Your task to perform on an android device: Open the stopwatch Image 0: 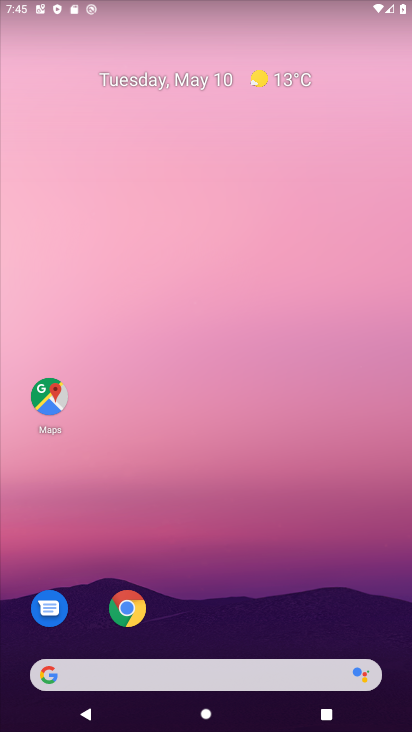
Step 0: drag from (239, 613) to (164, 162)
Your task to perform on an android device: Open the stopwatch Image 1: 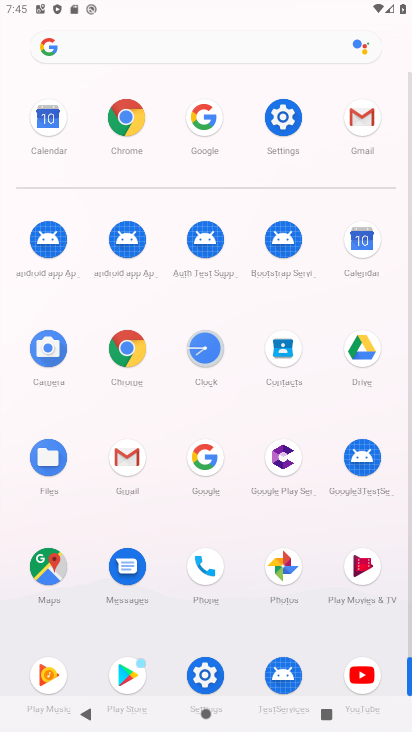
Step 1: click (209, 361)
Your task to perform on an android device: Open the stopwatch Image 2: 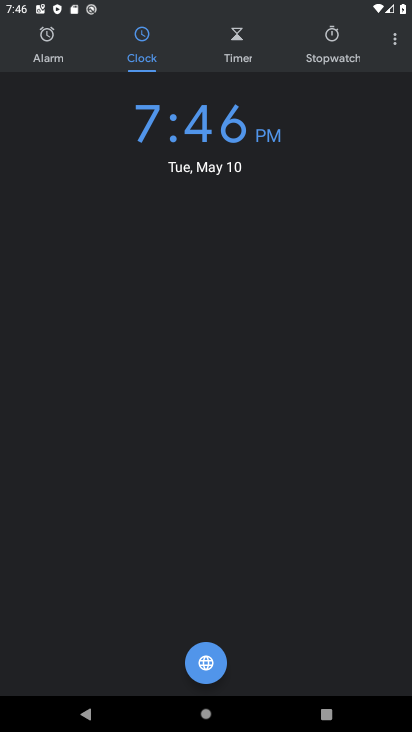
Step 2: click (324, 63)
Your task to perform on an android device: Open the stopwatch Image 3: 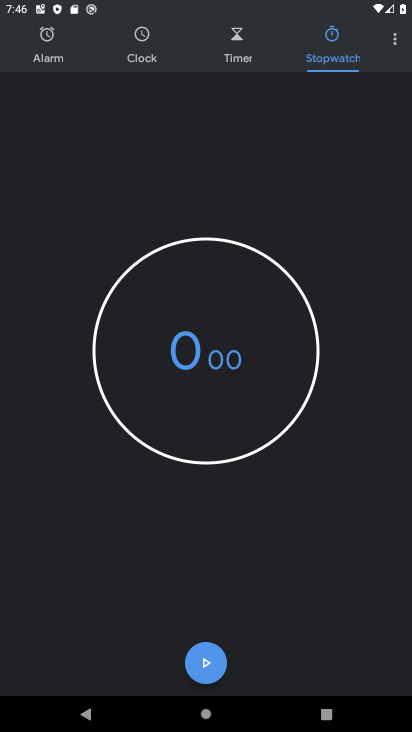
Step 3: task complete